Your task to perform on an android device: manage bookmarks in the chrome app Image 0: 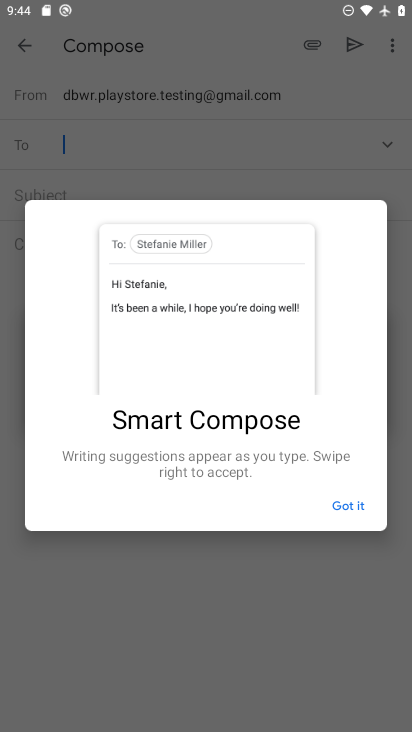
Step 0: press home button
Your task to perform on an android device: manage bookmarks in the chrome app Image 1: 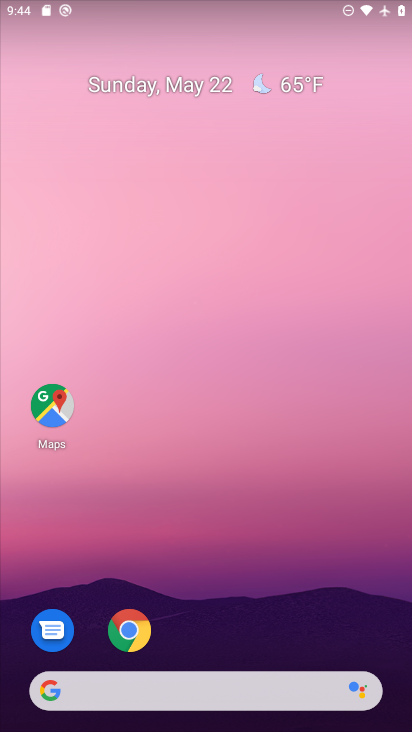
Step 1: click (119, 632)
Your task to perform on an android device: manage bookmarks in the chrome app Image 2: 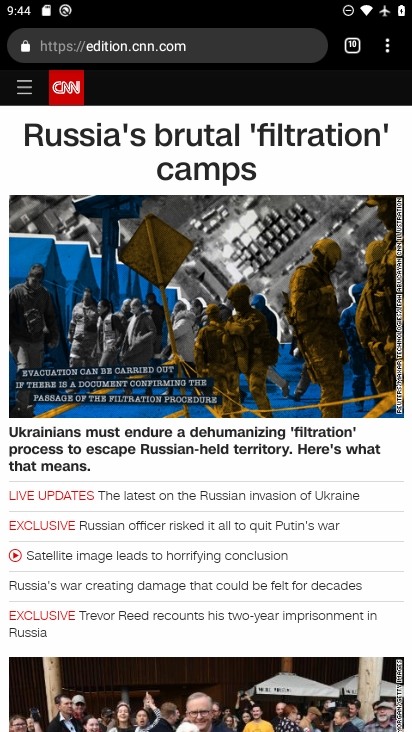
Step 2: drag from (383, 52) to (265, 162)
Your task to perform on an android device: manage bookmarks in the chrome app Image 3: 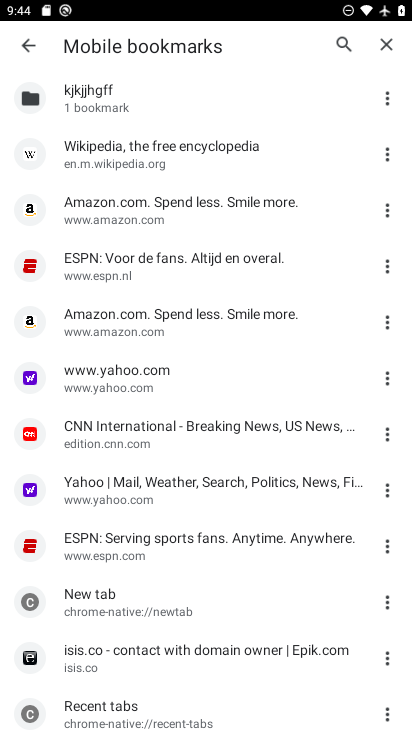
Step 3: click (387, 157)
Your task to perform on an android device: manage bookmarks in the chrome app Image 4: 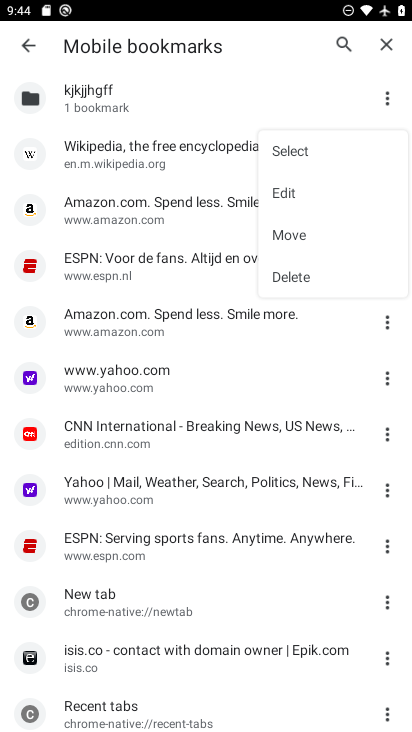
Step 4: click (302, 241)
Your task to perform on an android device: manage bookmarks in the chrome app Image 5: 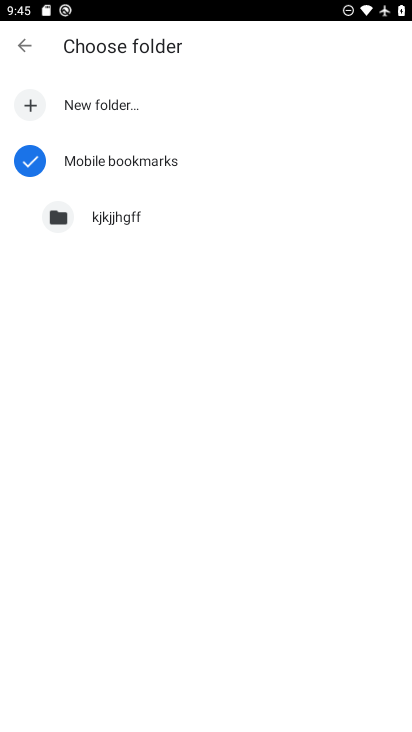
Step 5: click (73, 216)
Your task to perform on an android device: manage bookmarks in the chrome app Image 6: 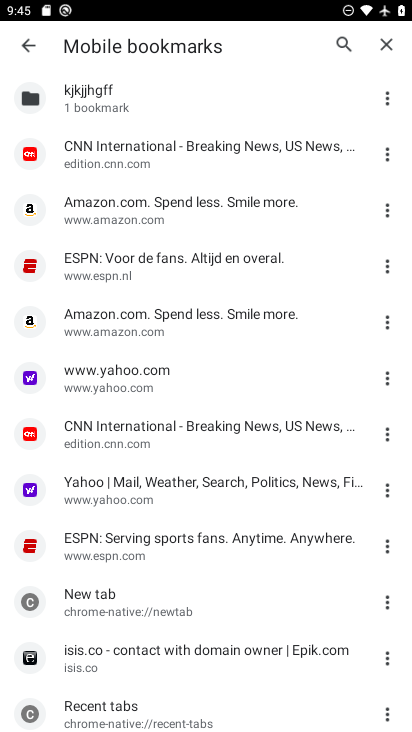
Step 6: task complete